Your task to perform on an android device: Open battery settings Image 0: 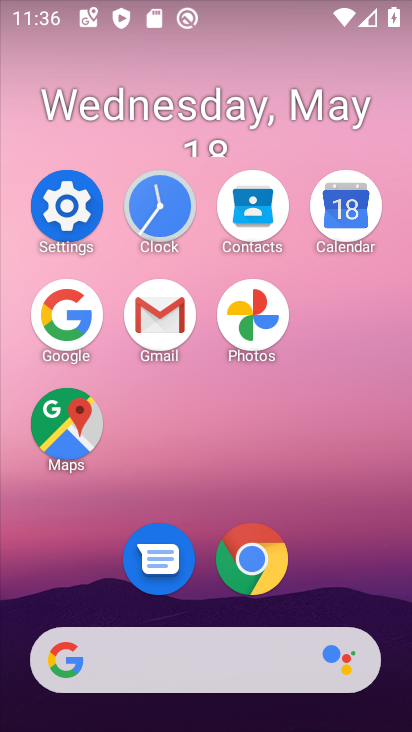
Step 0: click (94, 210)
Your task to perform on an android device: Open battery settings Image 1: 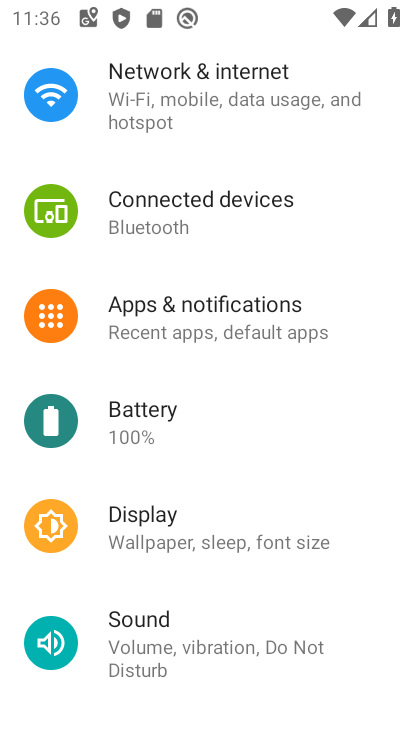
Step 1: click (165, 406)
Your task to perform on an android device: Open battery settings Image 2: 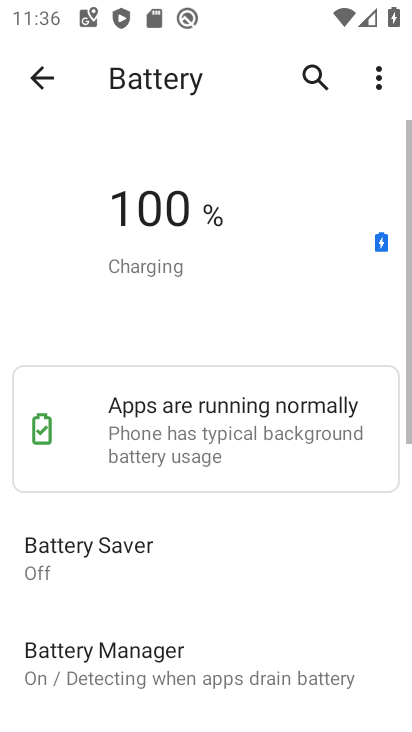
Step 2: task complete